Your task to perform on an android device: Go to Google Image 0: 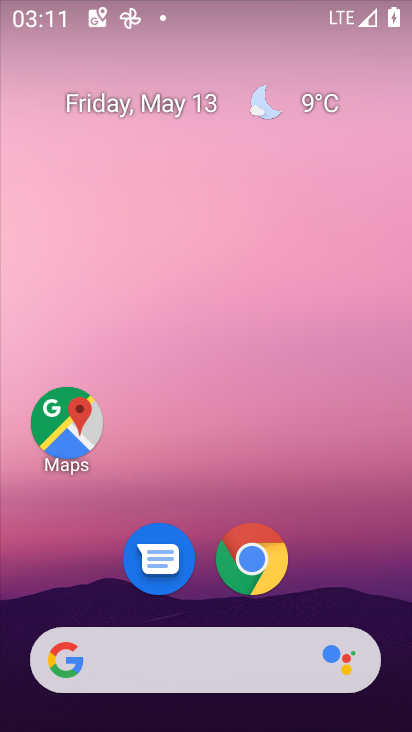
Step 0: drag from (403, 666) to (280, 156)
Your task to perform on an android device: Go to Google Image 1: 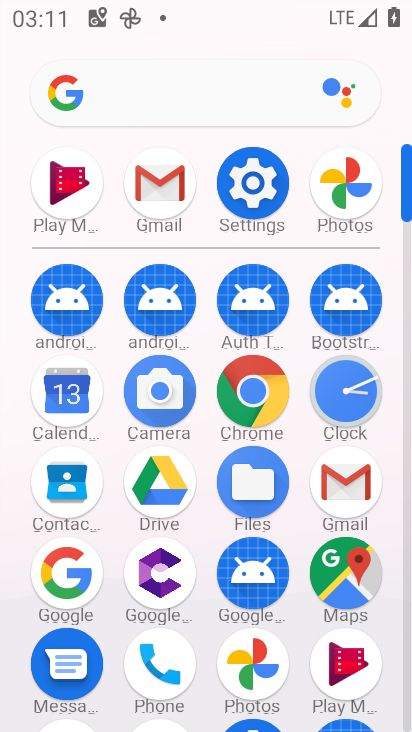
Step 1: click (68, 566)
Your task to perform on an android device: Go to Google Image 2: 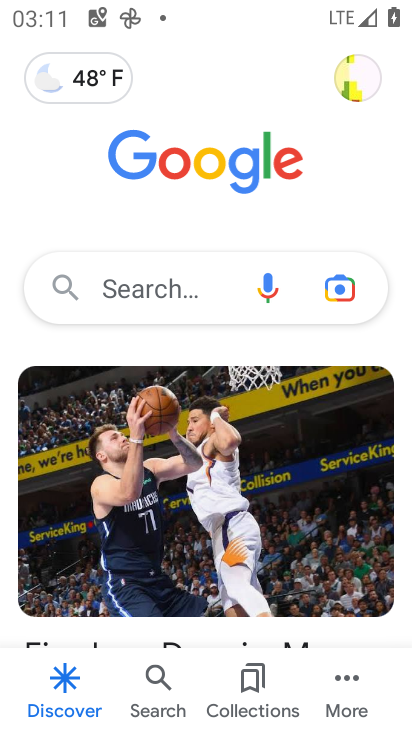
Step 2: task complete